Your task to perform on an android device: check google app version Image 0: 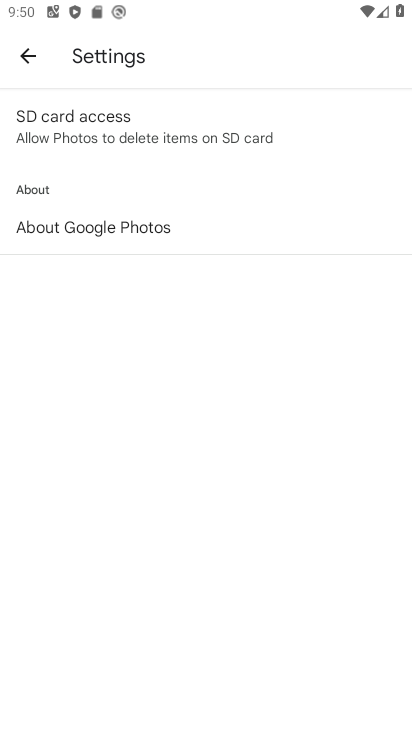
Step 0: click (24, 54)
Your task to perform on an android device: check google app version Image 1: 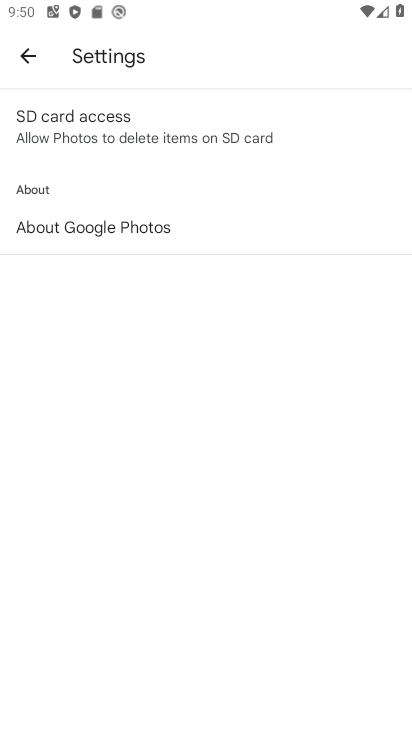
Step 1: press home button
Your task to perform on an android device: check google app version Image 2: 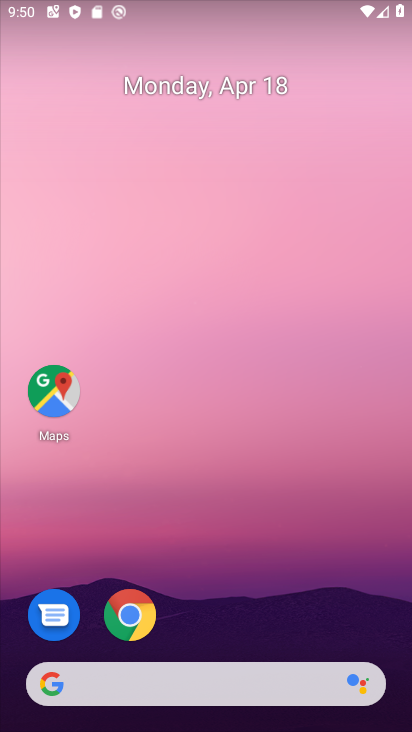
Step 2: drag from (175, 636) to (211, 375)
Your task to perform on an android device: check google app version Image 3: 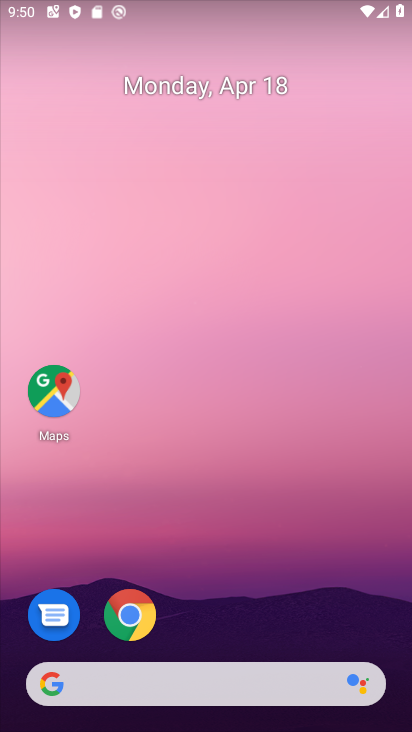
Step 3: drag from (225, 670) to (358, 252)
Your task to perform on an android device: check google app version Image 4: 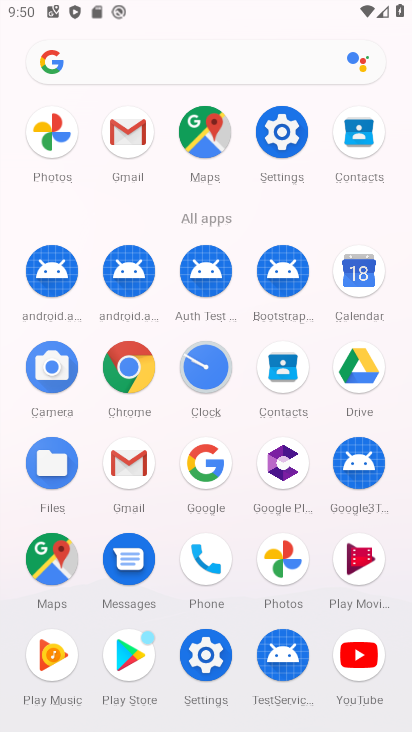
Step 4: click (205, 459)
Your task to perform on an android device: check google app version Image 5: 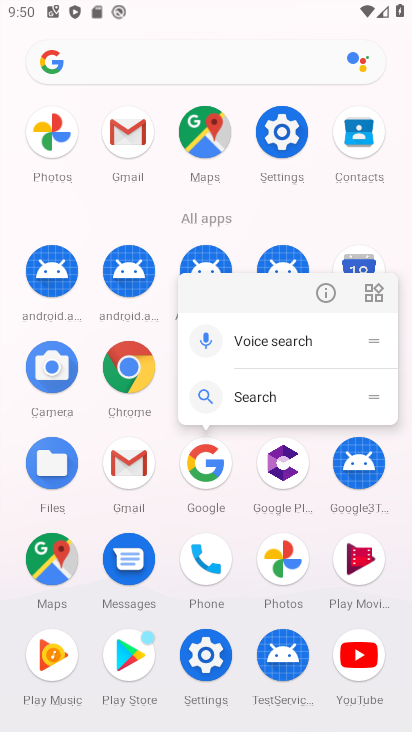
Step 5: click (324, 301)
Your task to perform on an android device: check google app version Image 6: 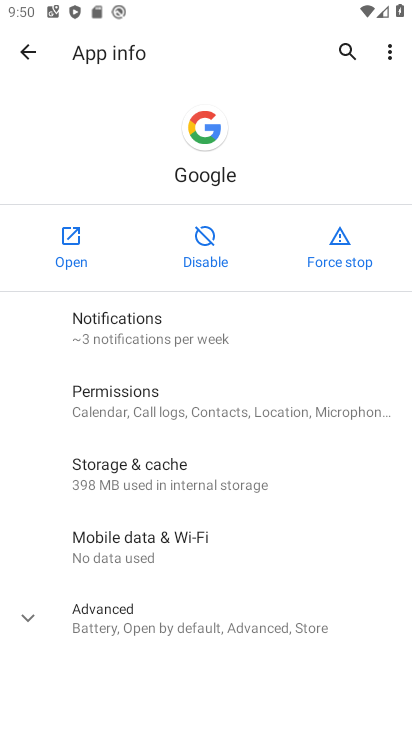
Step 6: drag from (181, 602) to (249, 290)
Your task to perform on an android device: check google app version Image 7: 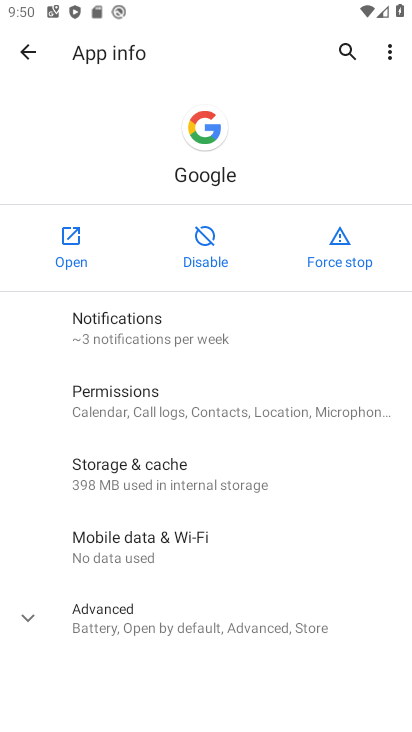
Step 7: click (157, 614)
Your task to perform on an android device: check google app version Image 8: 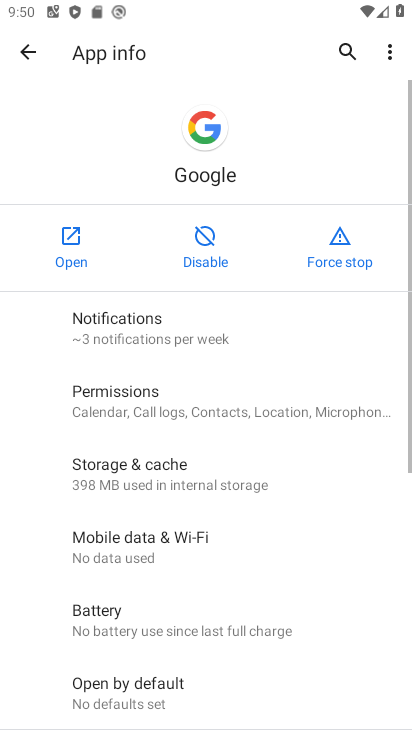
Step 8: task complete